Your task to perform on an android device: find photos in the google photos app Image 0: 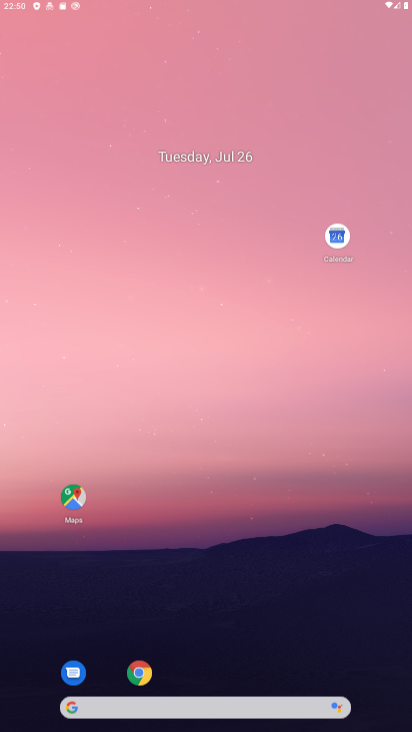
Step 0: click (277, 252)
Your task to perform on an android device: find photos in the google photos app Image 1: 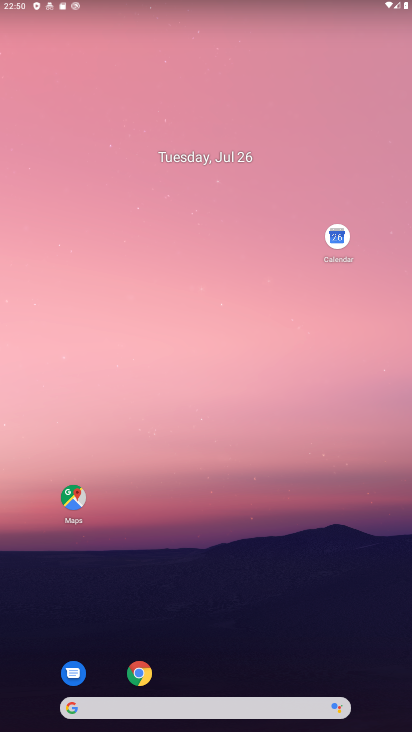
Step 1: drag from (226, 586) to (185, 196)
Your task to perform on an android device: find photos in the google photos app Image 2: 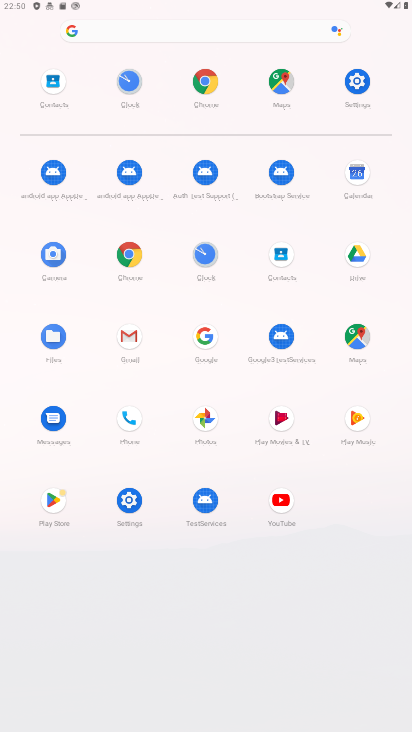
Step 2: click (196, 417)
Your task to perform on an android device: find photos in the google photos app Image 3: 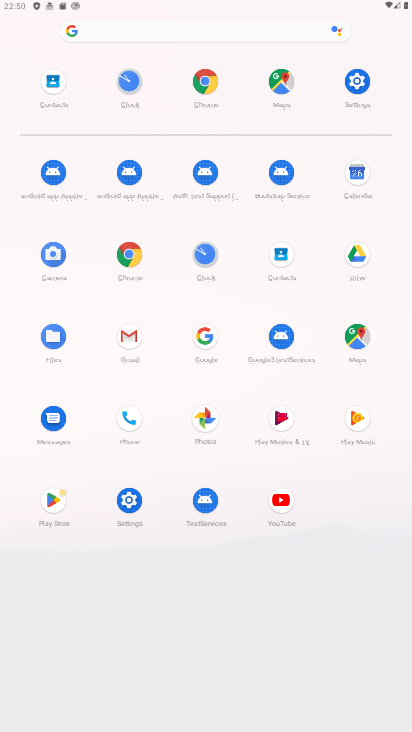
Step 3: click (197, 417)
Your task to perform on an android device: find photos in the google photos app Image 4: 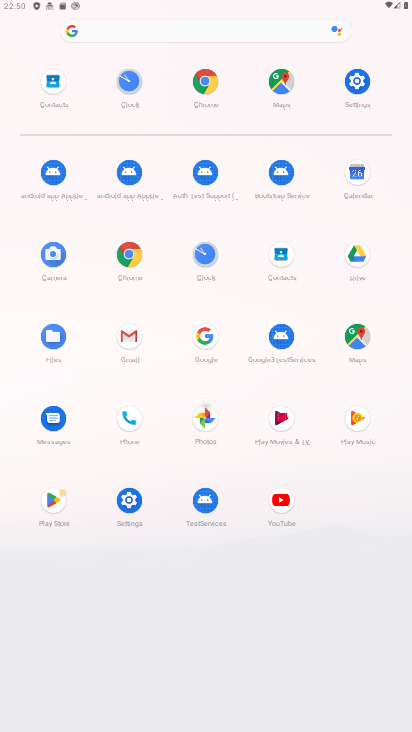
Step 4: click (198, 417)
Your task to perform on an android device: find photos in the google photos app Image 5: 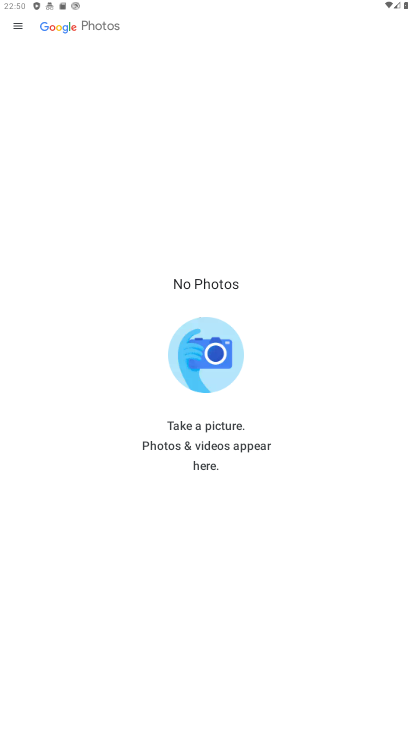
Step 5: click (198, 417)
Your task to perform on an android device: find photos in the google photos app Image 6: 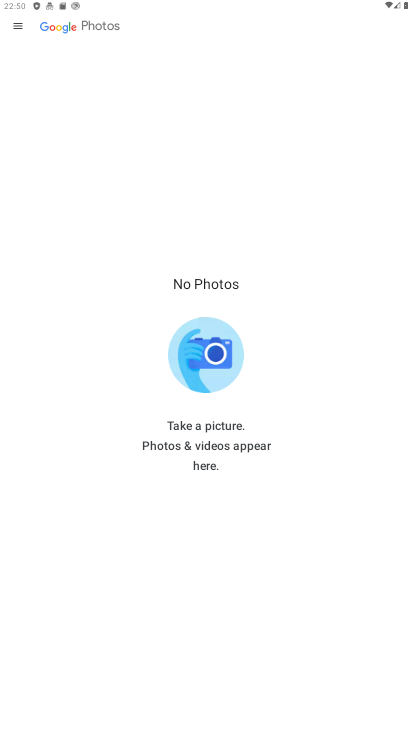
Step 6: click (200, 417)
Your task to perform on an android device: find photos in the google photos app Image 7: 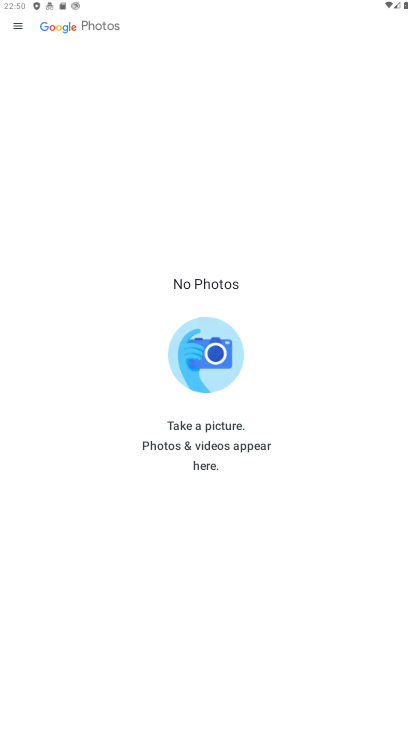
Step 7: click (17, 20)
Your task to perform on an android device: find photos in the google photos app Image 8: 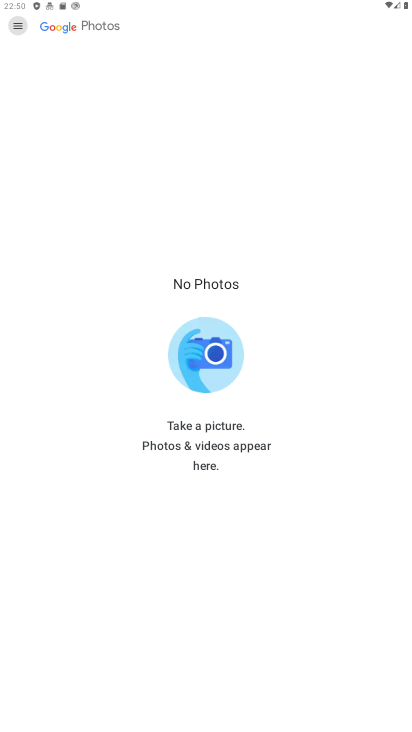
Step 8: click (17, 22)
Your task to perform on an android device: find photos in the google photos app Image 9: 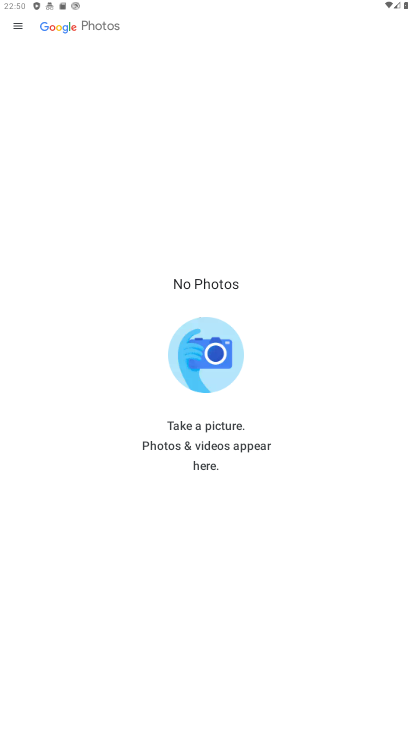
Step 9: click (342, 409)
Your task to perform on an android device: find photos in the google photos app Image 10: 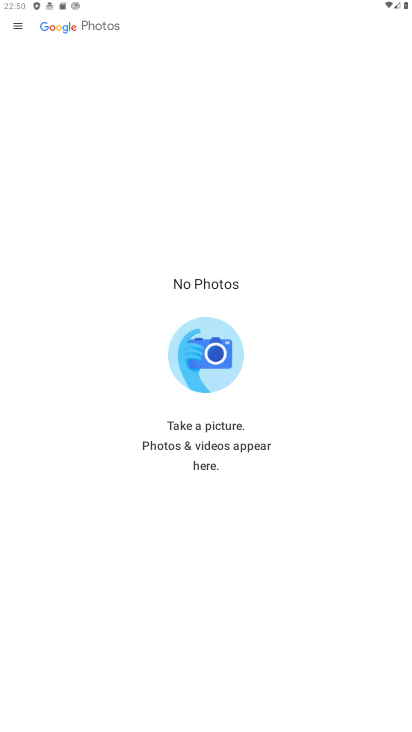
Step 10: press back button
Your task to perform on an android device: find photos in the google photos app Image 11: 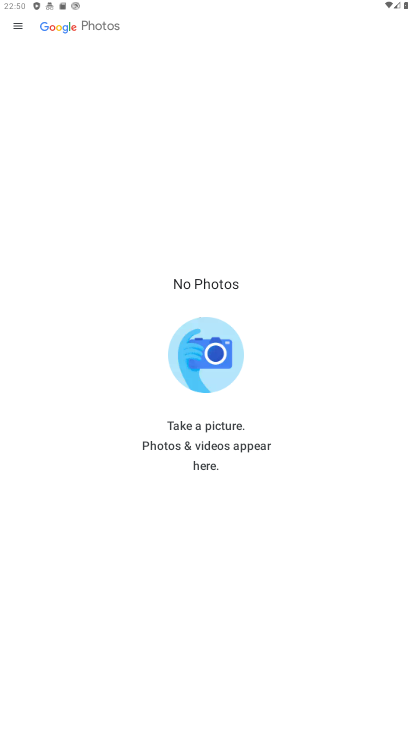
Step 11: press back button
Your task to perform on an android device: find photos in the google photos app Image 12: 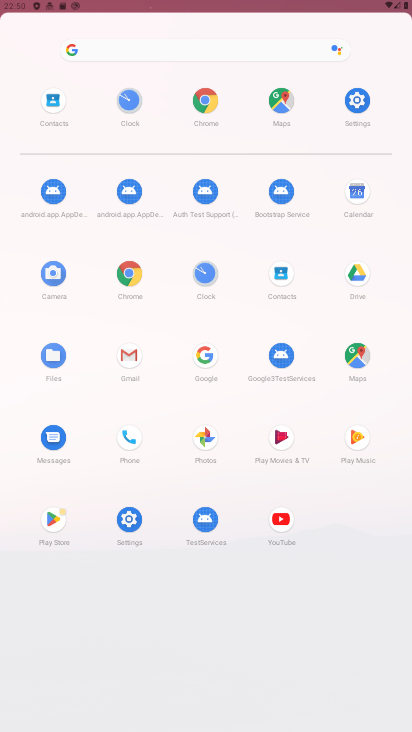
Step 12: press back button
Your task to perform on an android device: find photos in the google photos app Image 13: 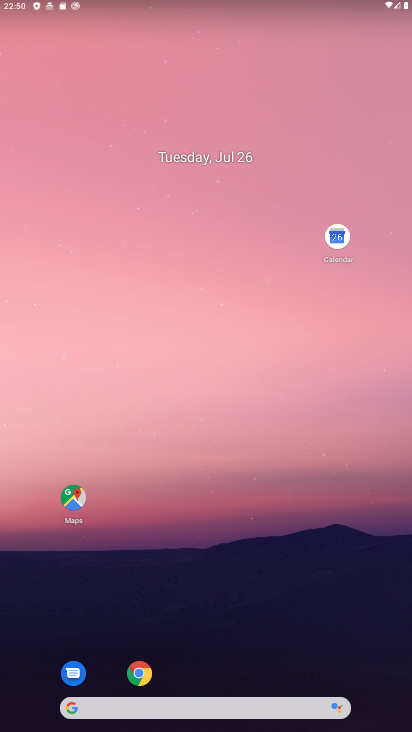
Step 13: press home button
Your task to perform on an android device: find photos in the google photos app Image 14: 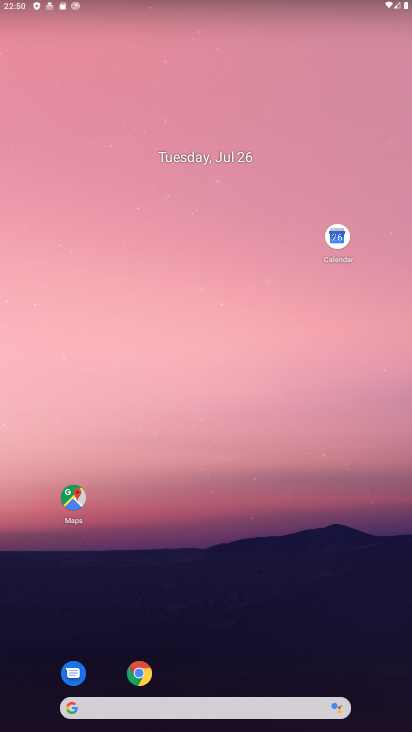
Step 14: drag from (224, 695) to (126, 124)
Your task to perform on an android device: find photos in the google photos app Image 15: 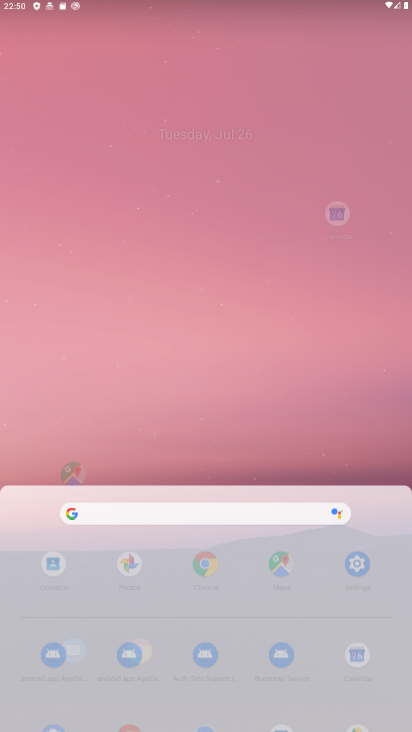
Step 15: drag from (242, 552) to (157, 145)
Your task to perform on an android device: find photos in the google photos app Image 16: 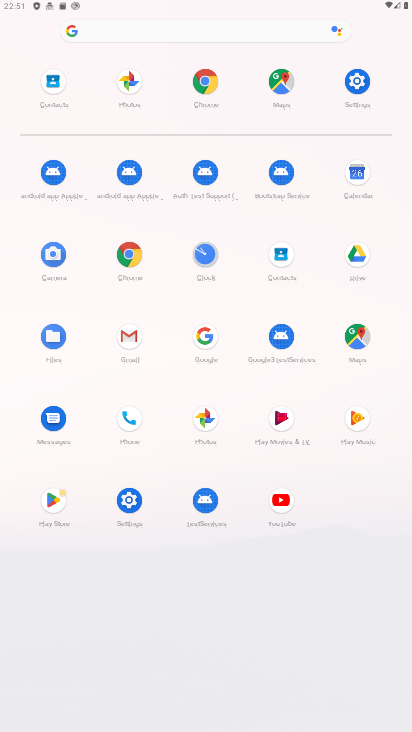
Step 16: click (204, 414)
Your task to perform on an android device: find photos in the google photos app Image 17: 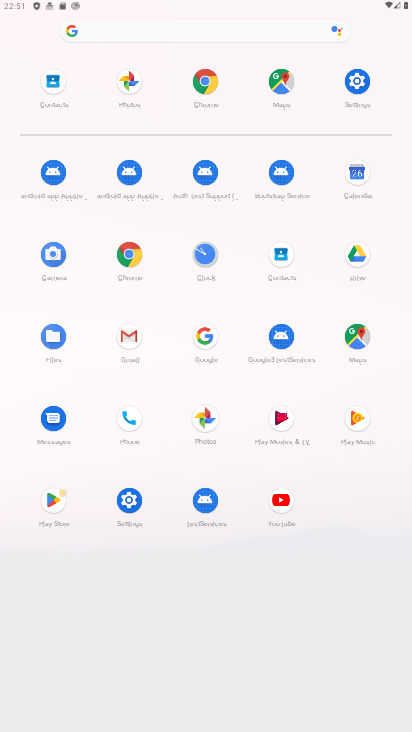
Step 17: click (203, 413)
Your task to perform on an android device: find photos in the google photos app Image 18: 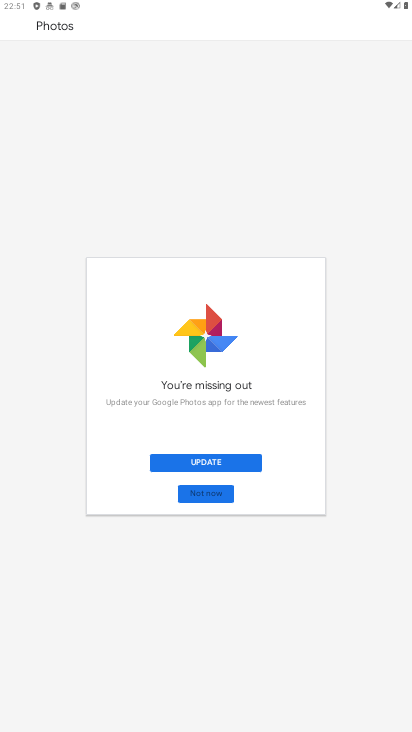
Step 18: click (199, 490)
Your task to perform on an android device: find photos in the google photos app Image 19: 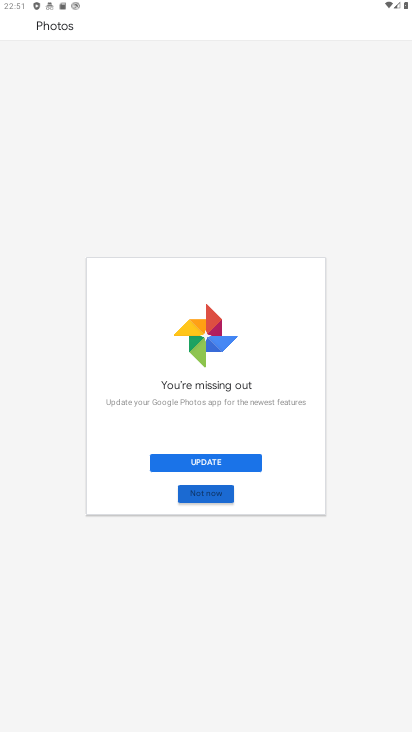
Step 19: click (200, 491)
Your task to perform on an android device: find photos in the google photos app Image 20: 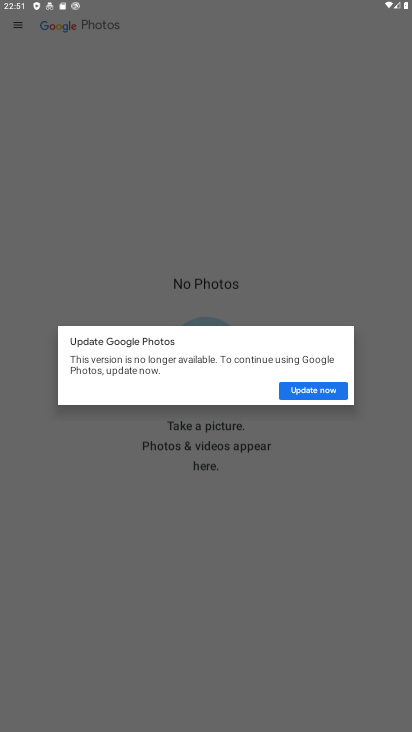
Step 20: click (206, 489)
Your task to perform on an android device: find photos in the google photos app Image 21: 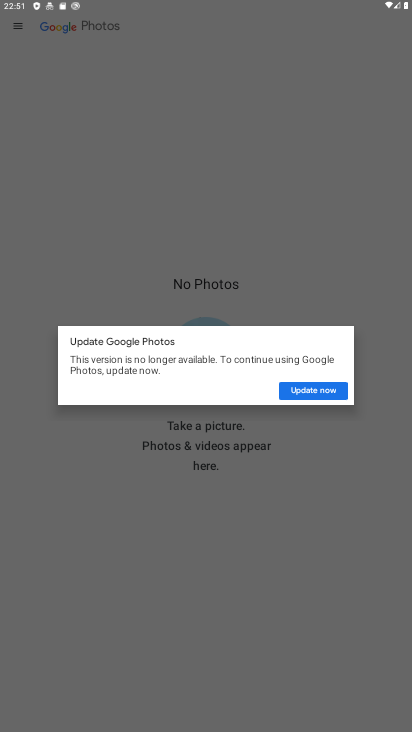
Step 21: click (306, 387)
Your task to perform on an android device: find photos in the google photos app Image 22: 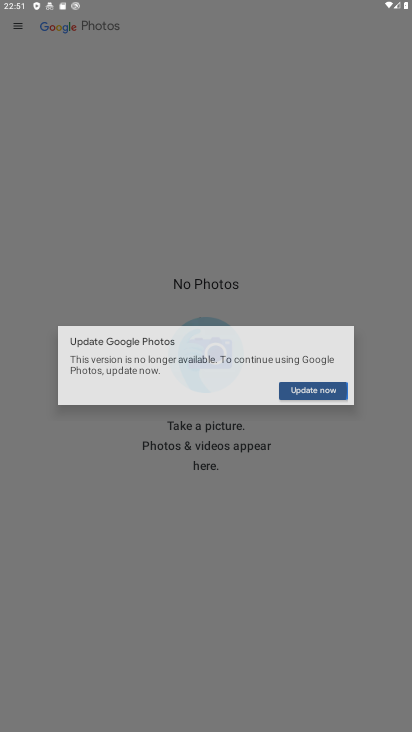
Step 22: click (308, 389)
Your task to perform on an android device: find photos in the google photos app Image 23: 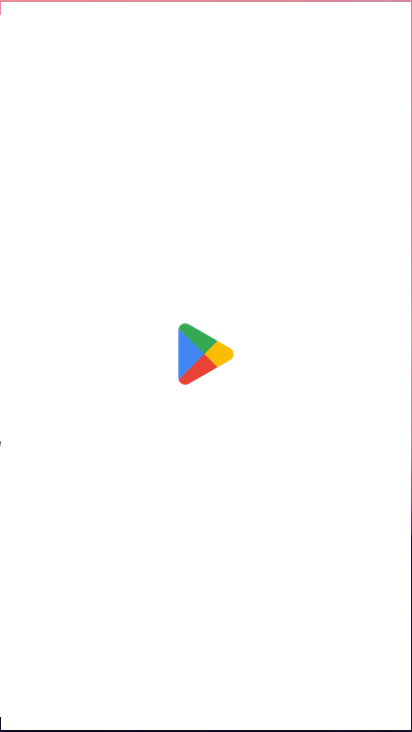
Step 23: click (311, 391)
Your task to perform on an android device: find photos in the google photos app Image 24: 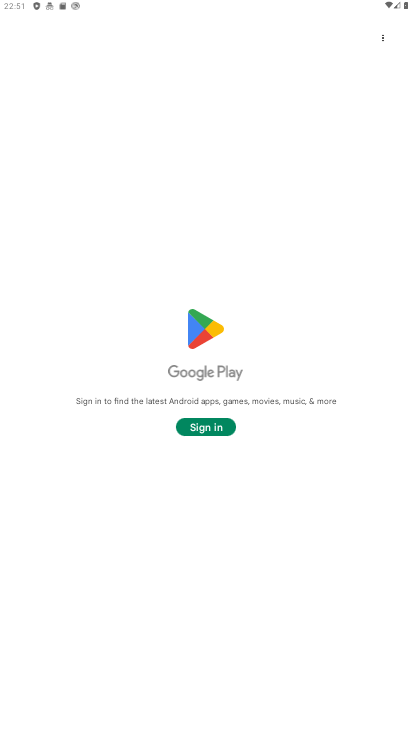
Step 24: task complete